Your task to perform on an android device: turn on wifi Image 0: 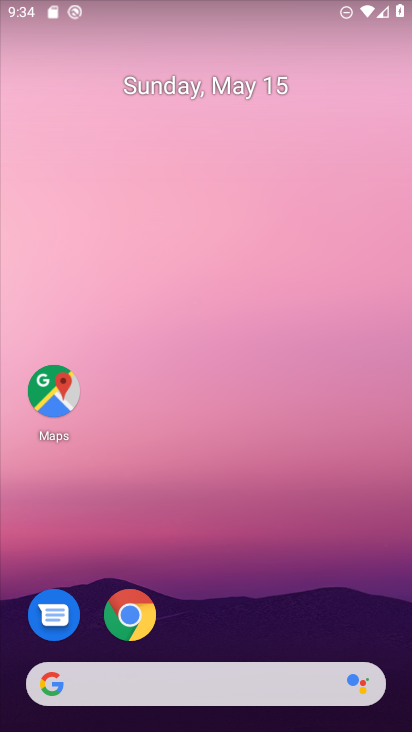
Step 0: drag from (214, 644) to (336, 79)
Your task to perform on an android device: turn on wifi Image 1: 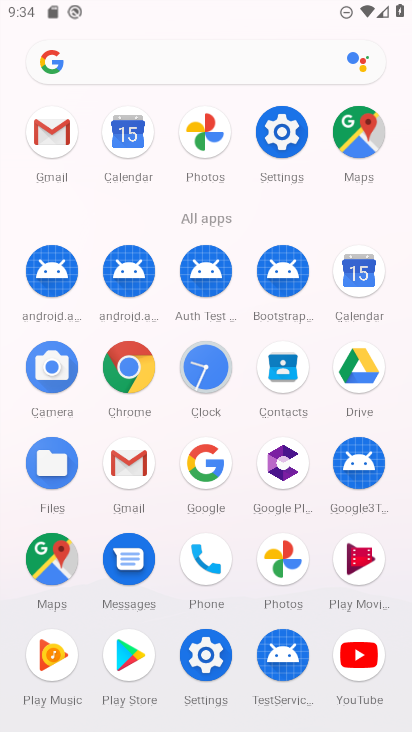
Step 1: click (210, 654)
Your task to perform on an android device: turn on wifi Image 2: 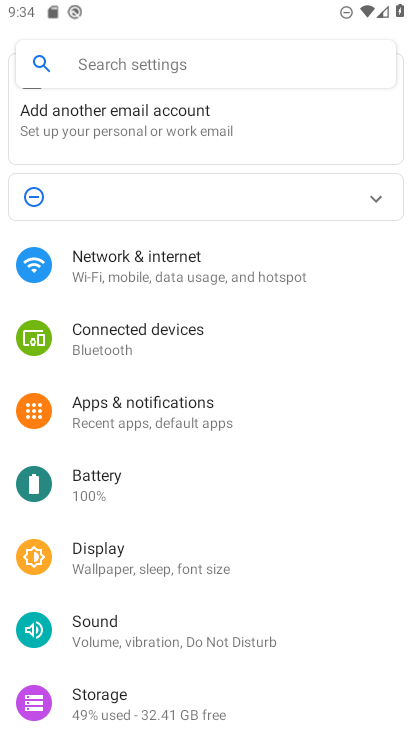
Step 2: click (212, 276)
Your task to perform on an android device: turn on wifi Image 3: 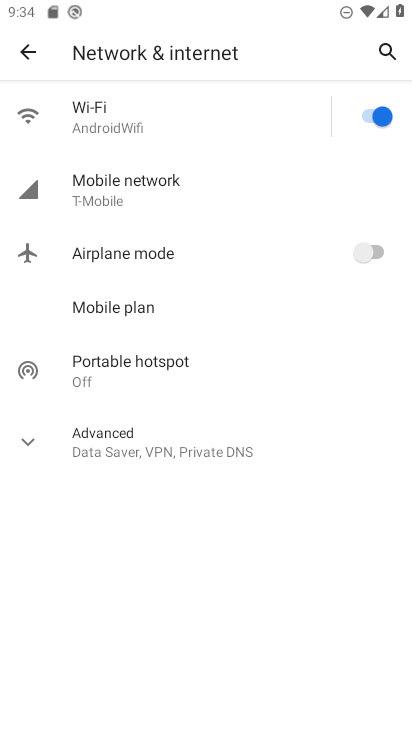
Step 3: click (132, 135)
Your task to perform on an android device: turn on wifi Image 4: 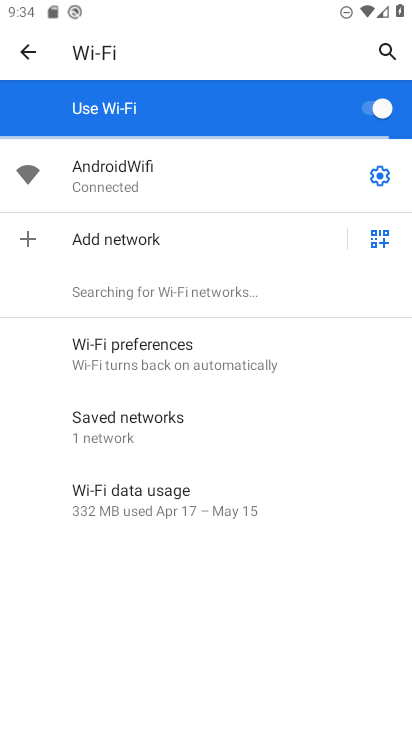
Step 4: task complete